Your task to perform on an android device: Is it going to rain this weekend? Image 0: 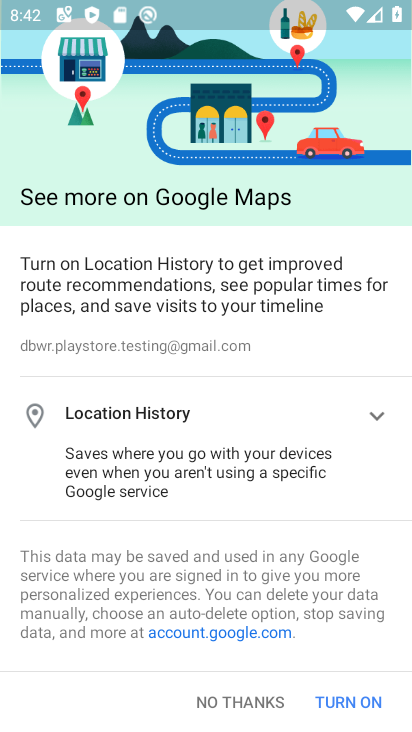
Step 0: press home button
Your task to perform on an android device: Is it going to rain this weekend? Image 1: 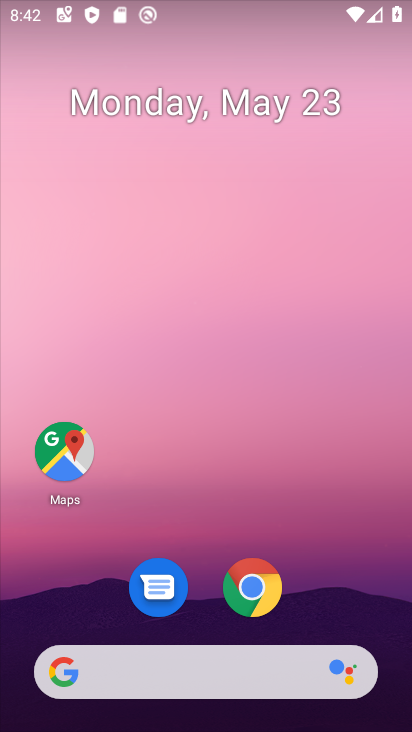
Step 1: click (178, 680)
Your task to perform on an android device: Is it going to rain this weekend? Image 2: 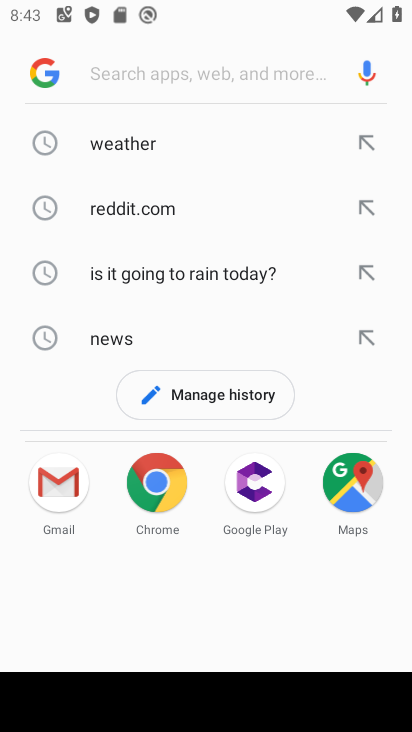
Step 2: click (133, 146)
Your task to perform on an android device: Is it going to rain this weekend? Image 3: 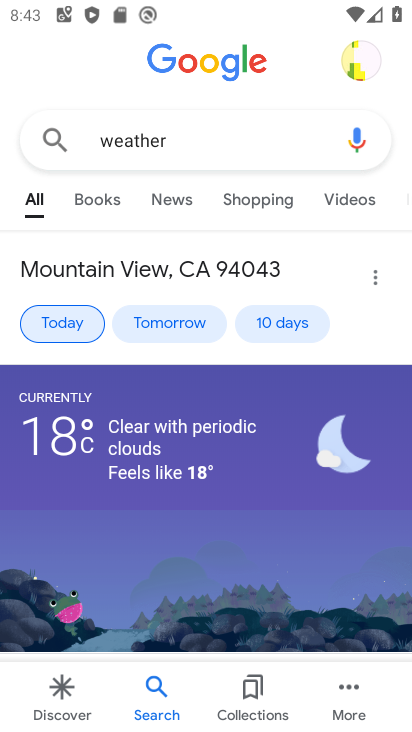
Step 3: click (287, 330)
Your task to perform on an android device: Is it going to rain this weekend? Image 4: 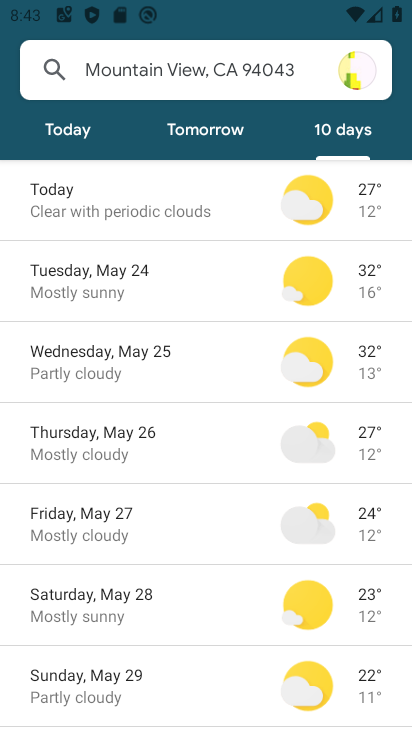
Step 4: task complete